Your task to perform on an android device: Open calendar and show me the first week of next month Image 0: 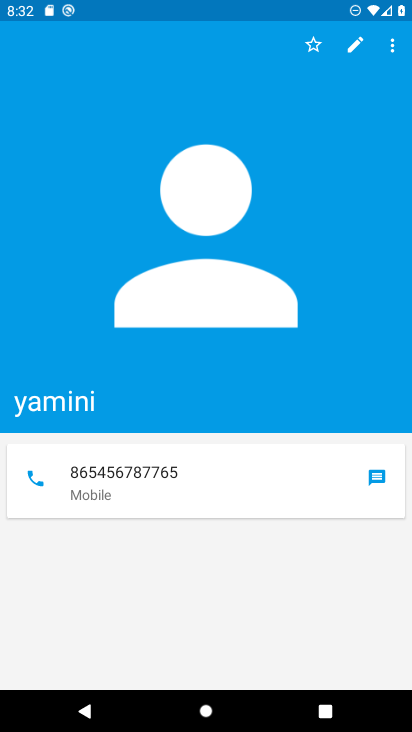
Step 0: press home button
Your task to perform on an android device: Open calendar and show me the first week of next month Image 1: 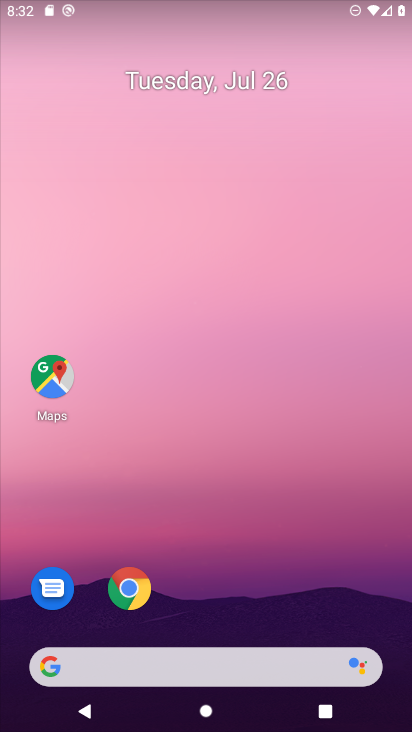
Step 1: drag from (266, 585) to (197, 24)
Your task to perform on an android device: Open calendar and show me the first week of next month Image 2: 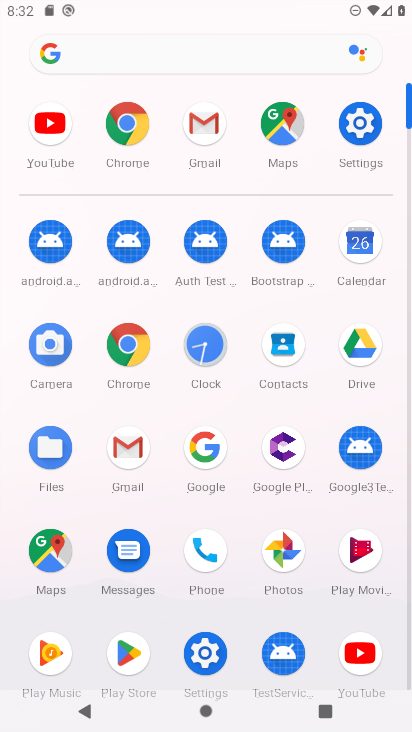
Step 2: click (355, 244)
Your task to perform on an android device: Open calendar and show me the first week of next month Image 3: 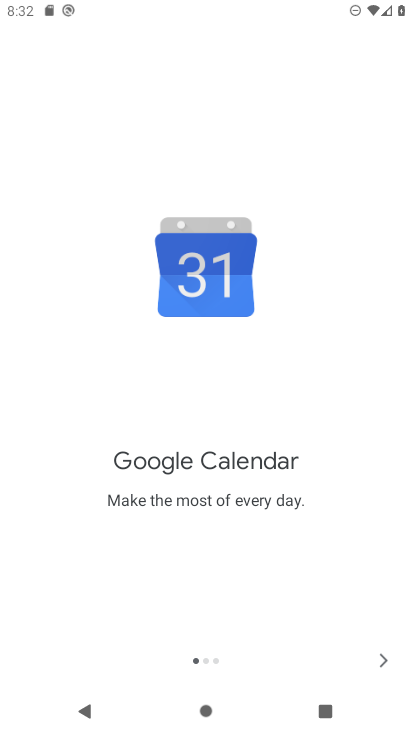
Step 3: click (382, 666)
Your task to perform on an android device: Open calendar and show me the first week of next month Image 4: 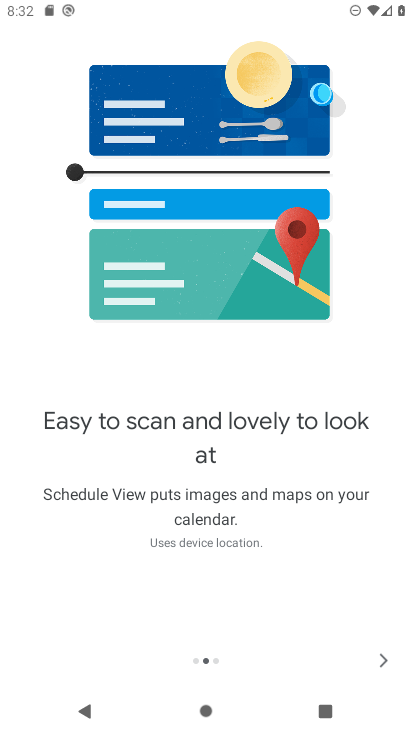
Step 4: click (382, 666)
Your task to perform on an android device: Open calendar and show me the first week of next month Image 5: 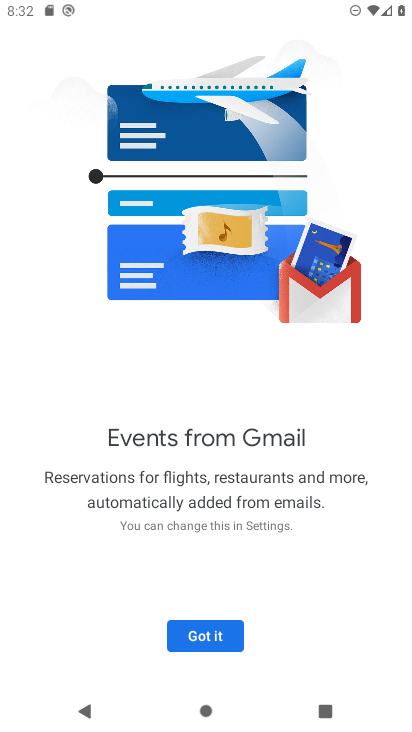
Step 5: click (201, 637)
Your task to perform on an android device: Open calendar and show me the first week of next month Image 6: 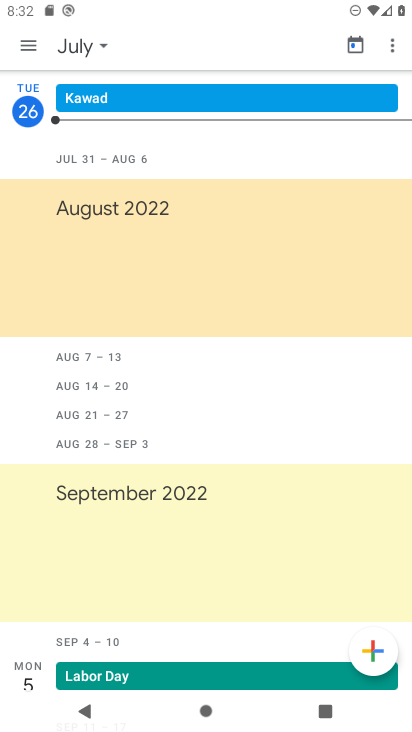
Step 6: click (103, 46)
Your task to perform on an android device: Open calendar and show me the first week of next month Image 7: 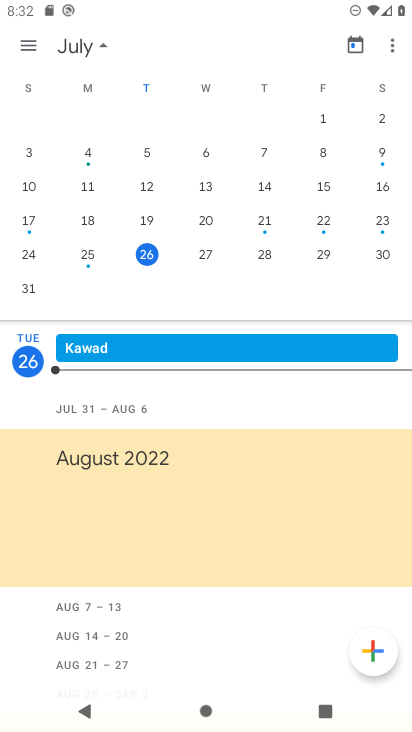
Step 7: drag from (319, 160) to (2, 76)
Your task to perform on an android device: Open calendar and show me the first week of next month Image 8: 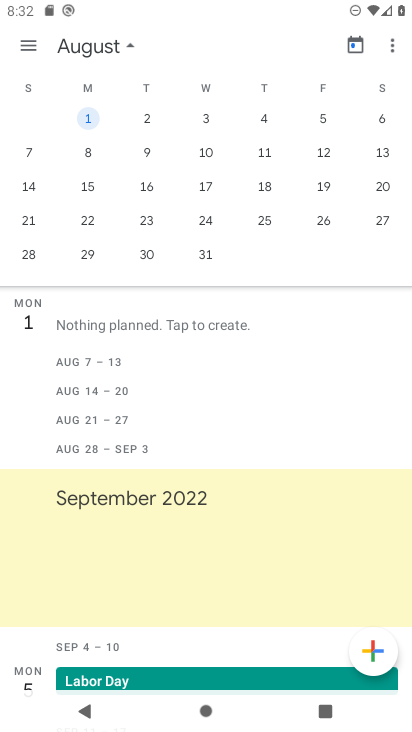
Step 8: click (29, 44)
Your task to perform on an android device: Open calendar and show me the first week of next month Image 9: 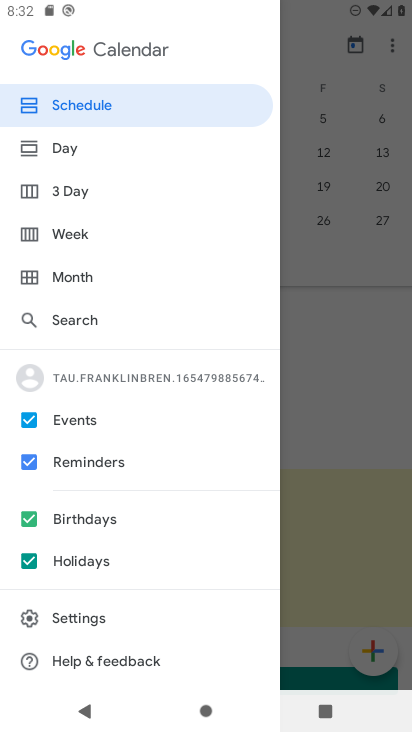
Step 9: click (67, 232)
Your task to perform on an android device: Open calendar and show me the first week of next month Image 10: 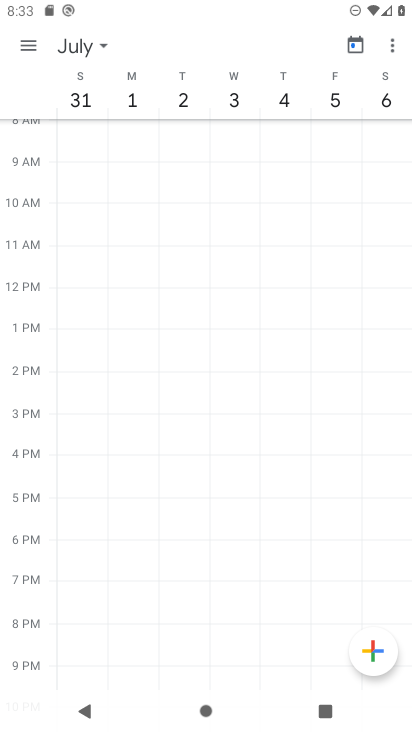
Step 10: task complete